Your task to perform on an android device: Turn on the flashlight Image 0: 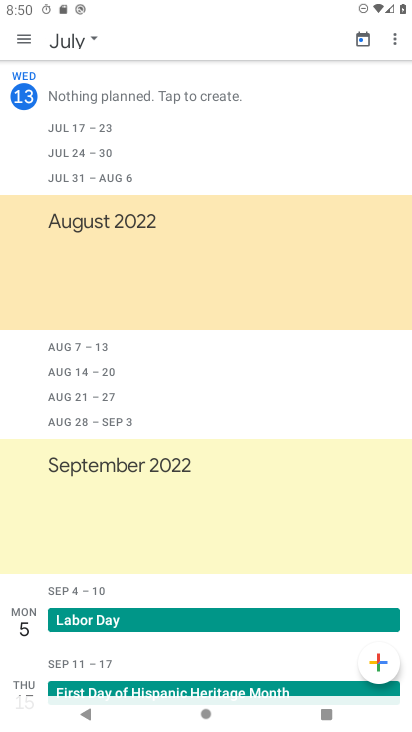
Step 0: press back button
Your task to perform on an android device: Turn on the flashlight Image 1: 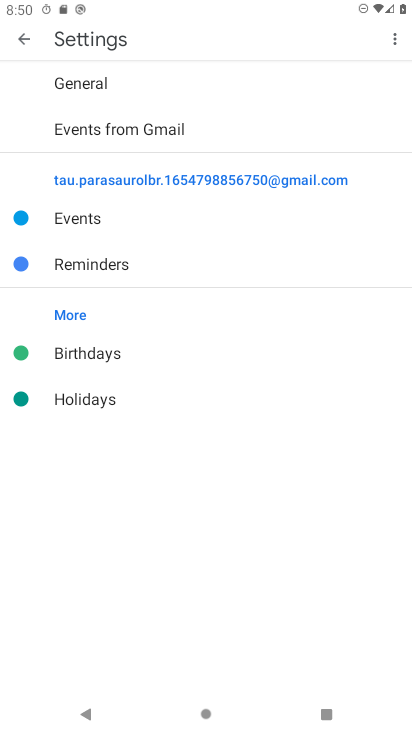
Step 1: click (21, 41)
Your task to perform on an android device: Turn on the flashlight Image 2: 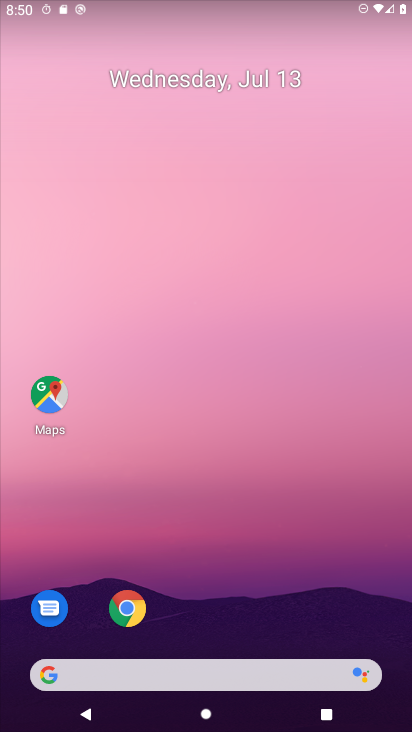
Step 2: task complete